Your task to perform on an android device: Open the map Image 0: 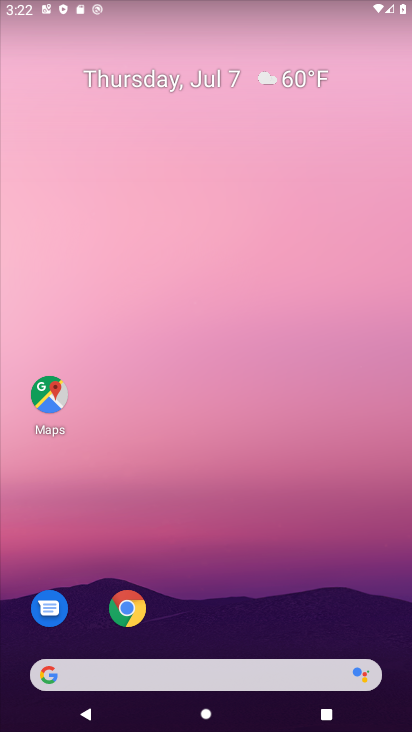
Step 0: click (302, 317)
Your task to perform on an android device: Open the map Image 1: 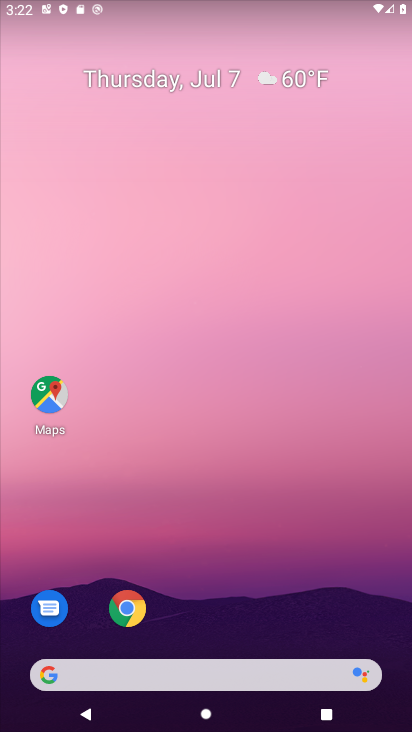
Step 1: click (41, 392)
Your task to perform on an android device: Open the map Image 2: 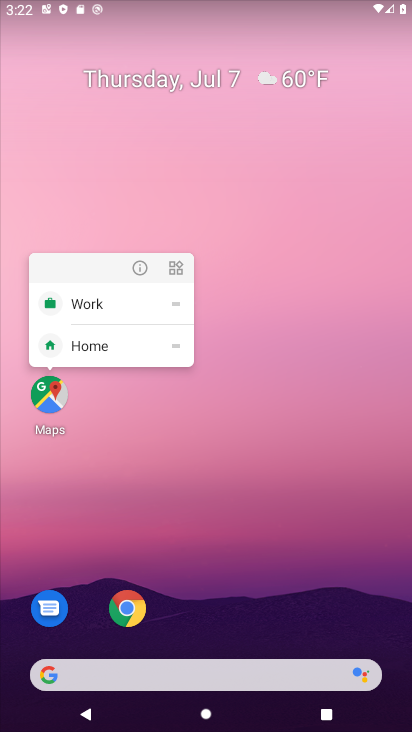
Step 2: click (41, 392)
Your task to perform on an android device: Open the map Image 3: 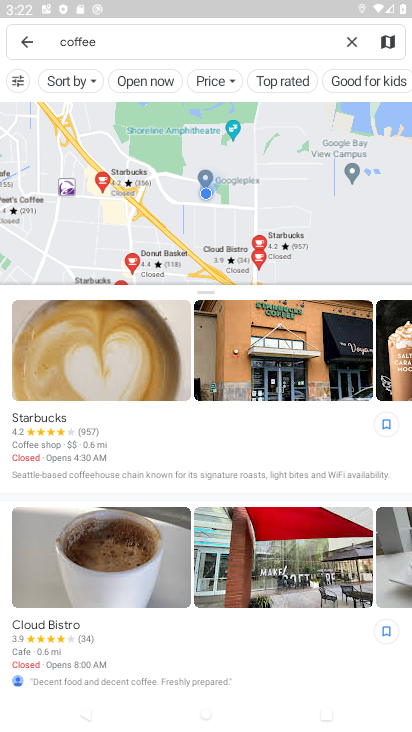
Step 3: task complete